Your task to perform on an android device: stop showing notifications on the lock screen Image 0: 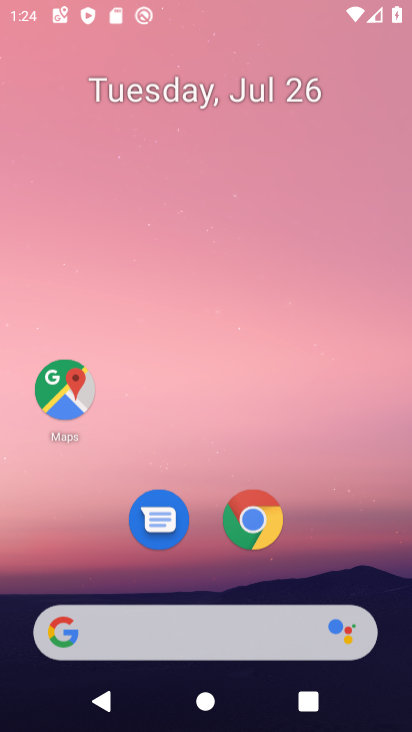
Step 0: click (401, 454)
Your task to perform on an android device: stop showing notifications on the lock screen Image 1: 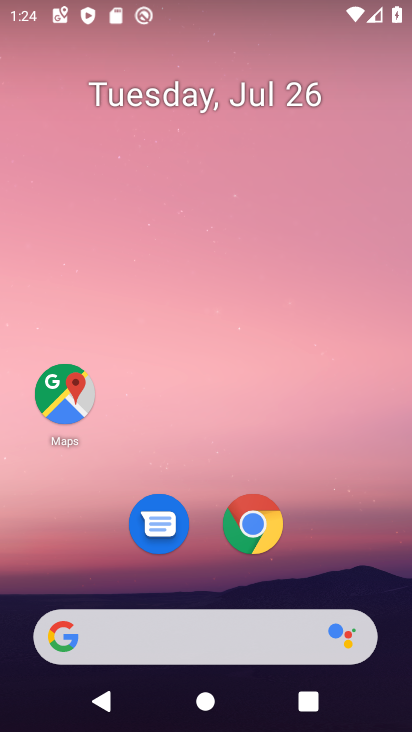
Step 1: press home button
Your task to perform on an android device: stop showing notifications on the lock screen Image 2: 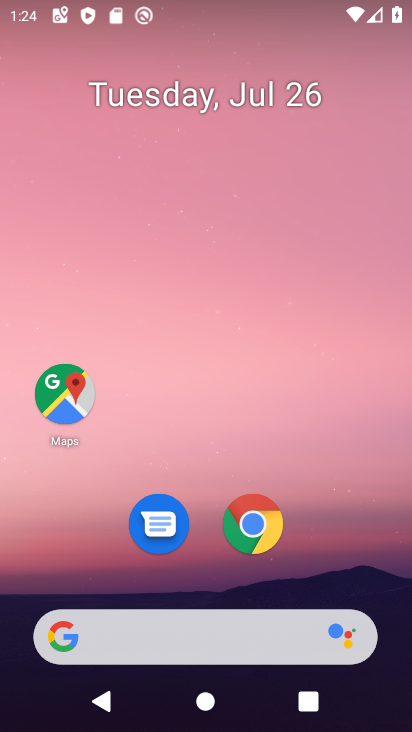
Step 2: drag from (164, 608) to (281, 106)
Your task to perform on an android device: stop showing notifications on the lock screen Image 3: 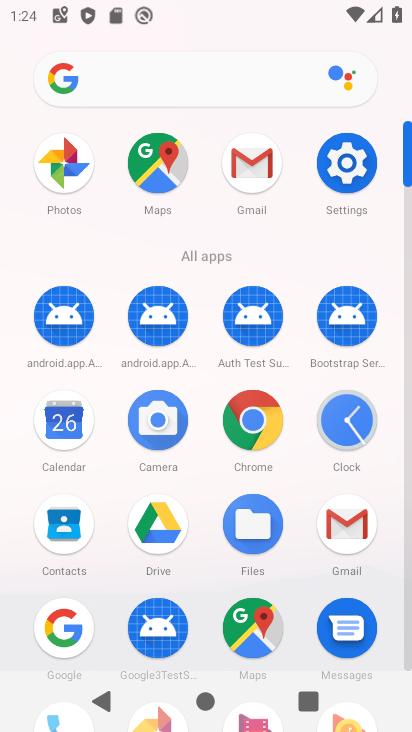
Step 3: click (350, 167)
Your task to perform on an android device: stop showing notifications on the lock screen Image 4: 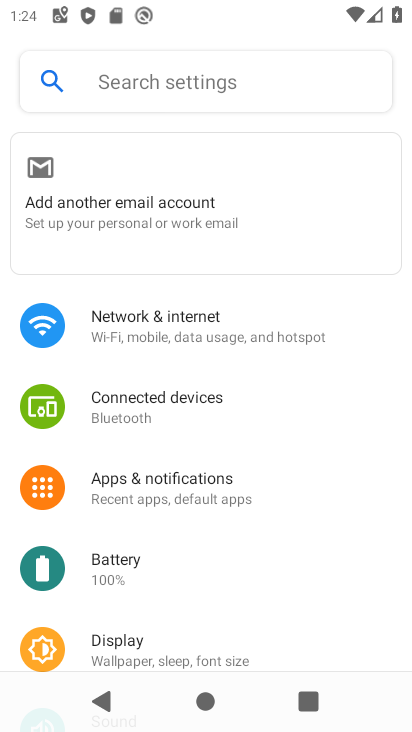
Step 4: click (170, 483)
Your task to perform on an android device: stop showing notifications on the lock screen Image 5: 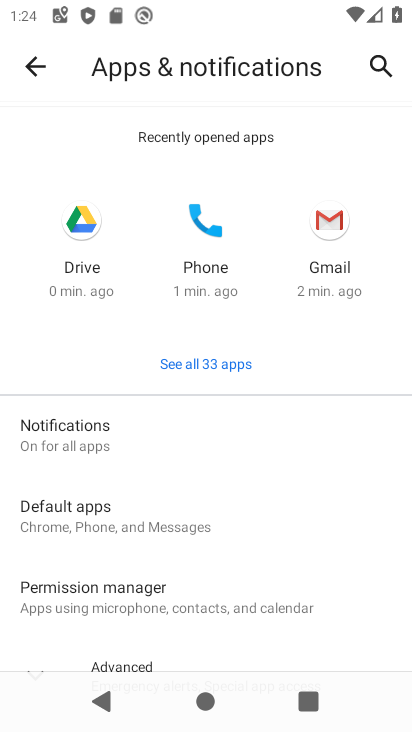
Step 5: click (89, 445)
Your task to perform on an android device: stop showing notifications on the lock screen Image 6: 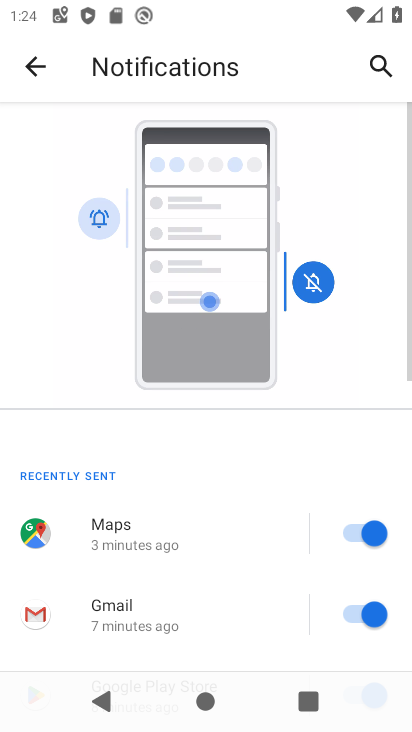
Step 6: drag from (235, 605) to (318, 137)
Your task to perform on an android device: stop showing notifications on the lock screen Image 7: 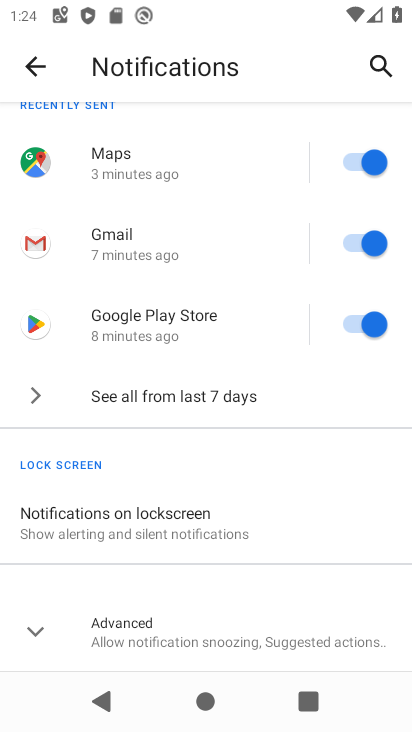
Step 7: click (157, 529)
Your task to perform on an android device: stop showing notifications on the lock screen Image 8: 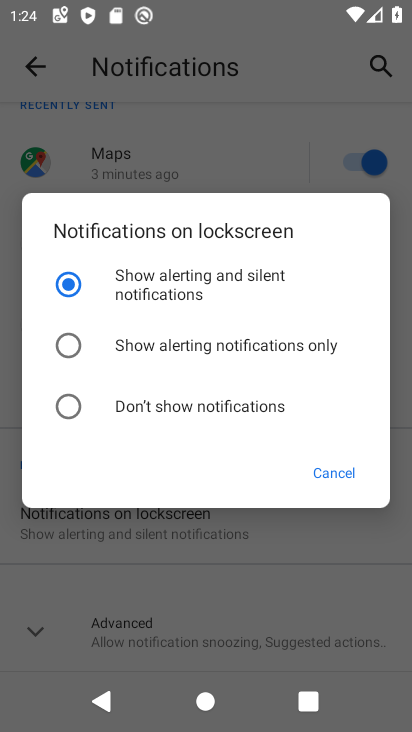
Step 8: click (67, 400)
Your task to perform on an android device: stop showing notifications on the lock screen Image 9: 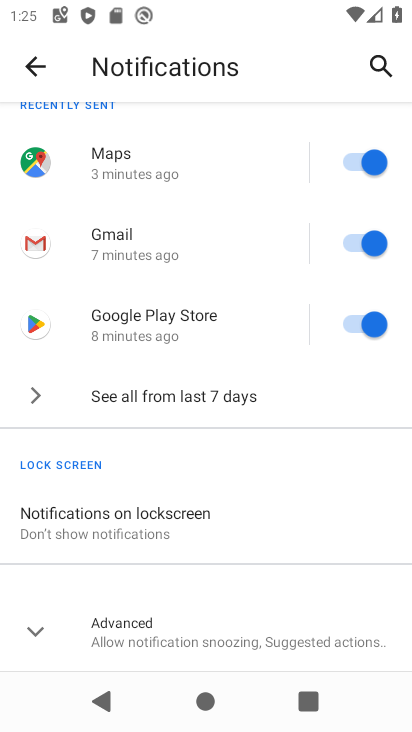
Step 9: task complete